Your task to perform on an android device: turn on bluetooth scan Image 0: 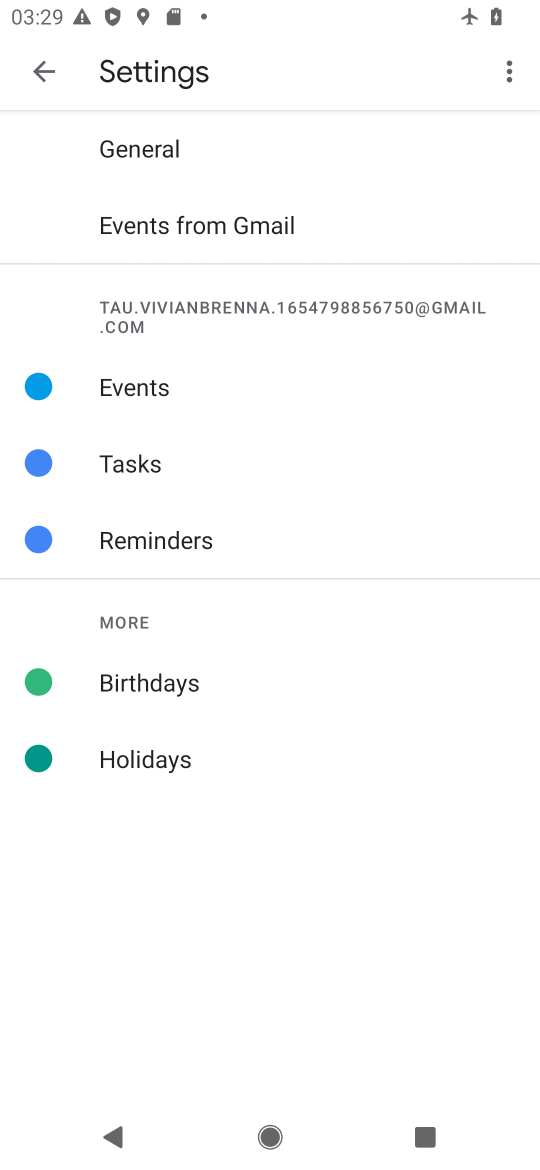
Step 0: press home button
Your task to perform on an android device: turn on bluetooth scan Image 1: 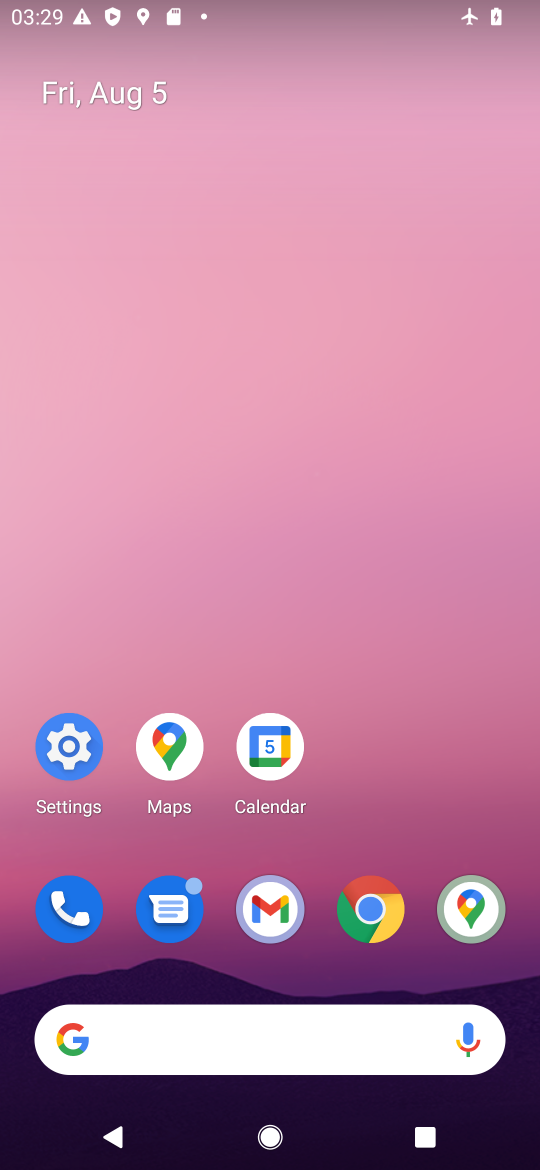
Step 1: click (62, 745)
Your task to perform on an android device: turn on bluetooth scan Image 2: 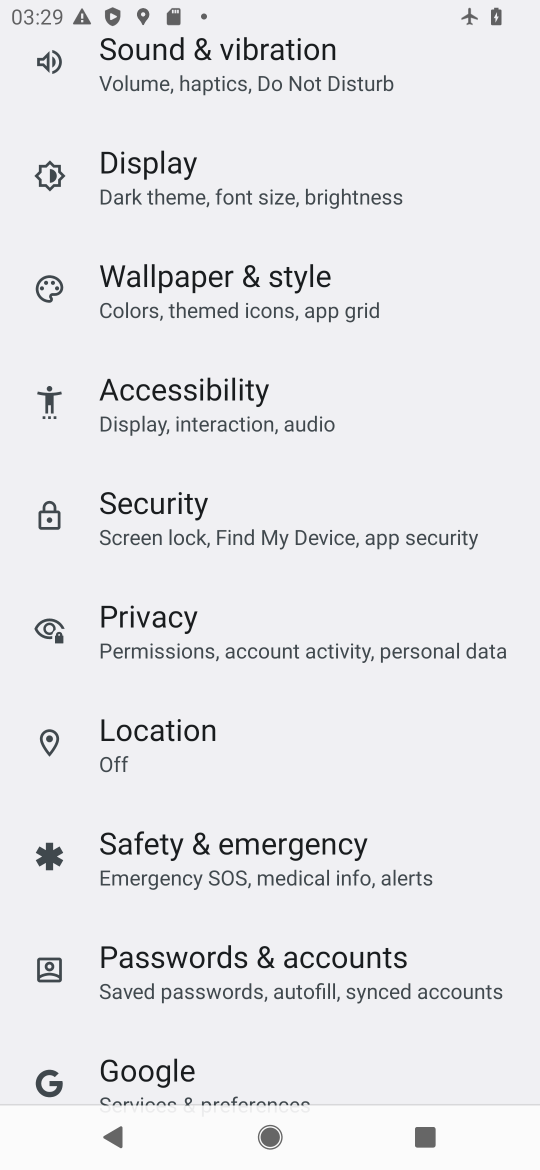
Step 2: drag from (325, 1016) to (341, 596)
Your task to perform on an android device: turn on bluetooth scan Image 3: 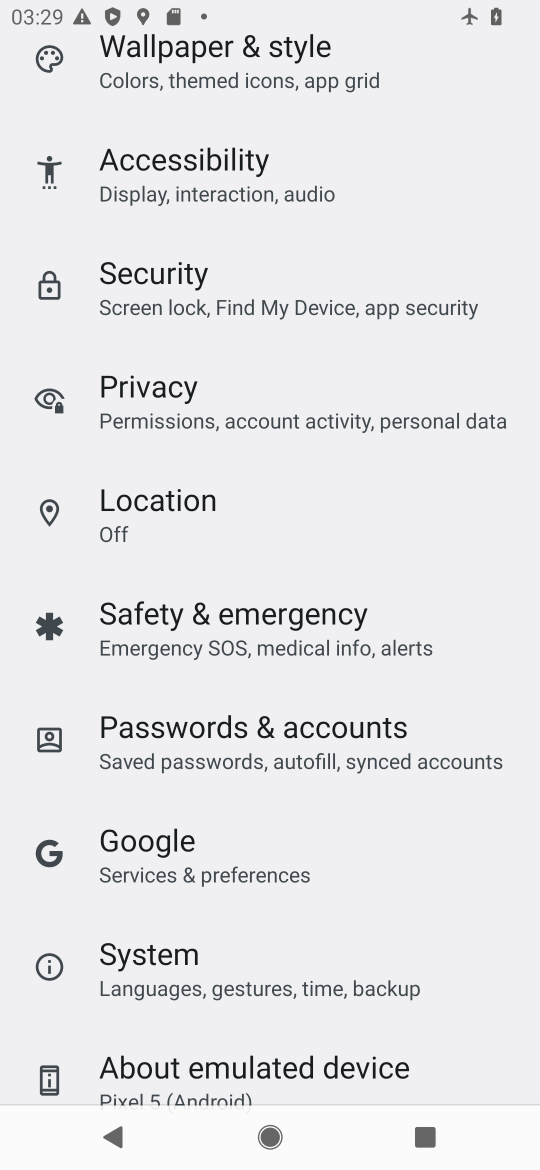
Step 3: click (140, 495)
Your task to perform on an android device: turn on bluetooth scan Image 4: 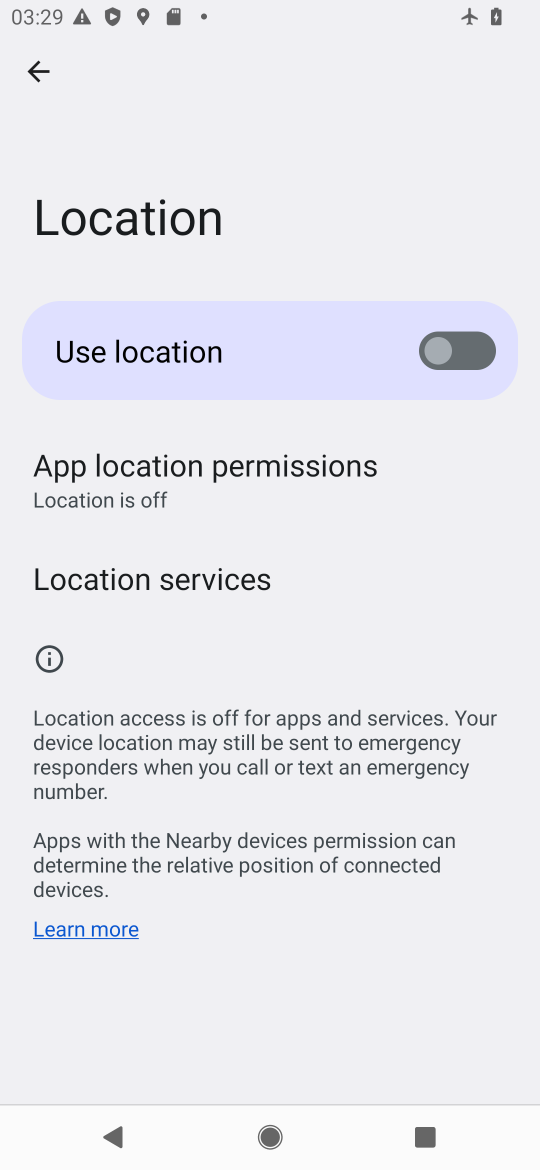
Step 4: click (122, 577)
Your task to perform on an android device: turn on bluetooth scan Image 5: 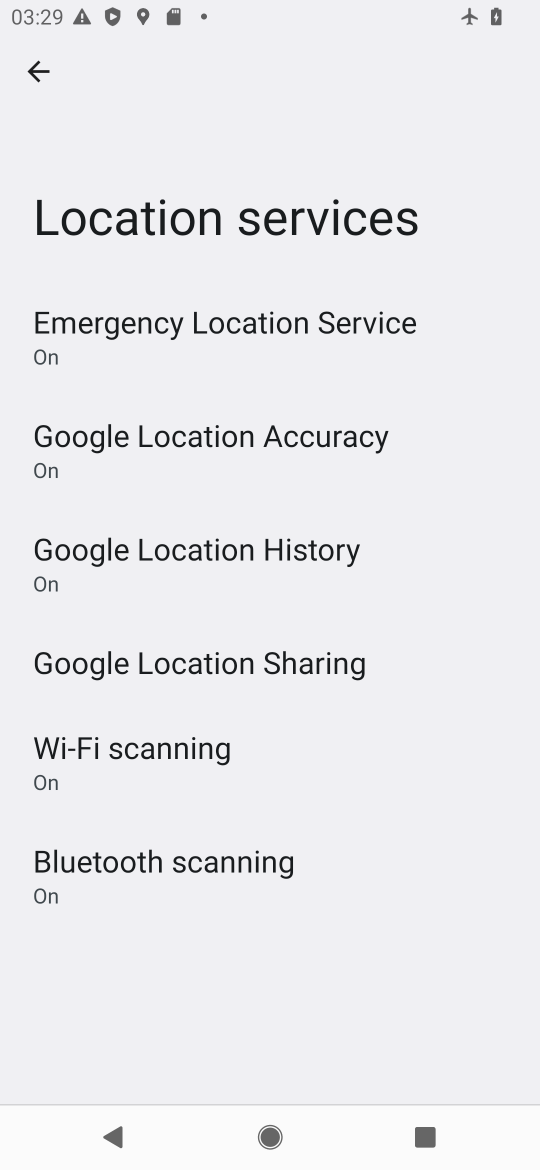
Step 5: click (162, 864)
Your task to perform on an android device: turn on bluetooth scan Image 6: 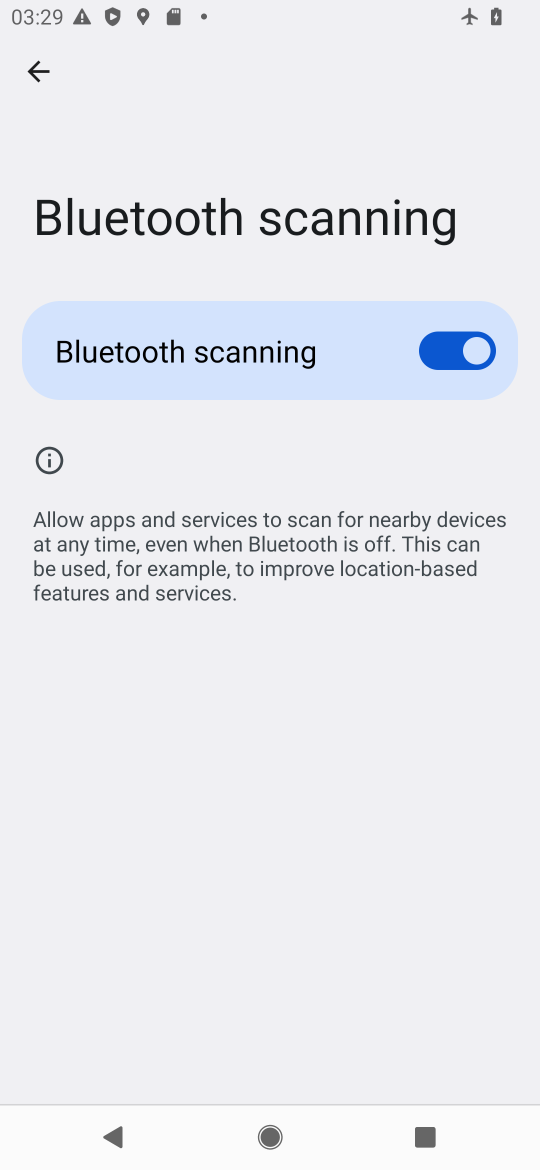
Step 6: task complete